Your task to perform on an android device: Open Yahoo.com Image 0: 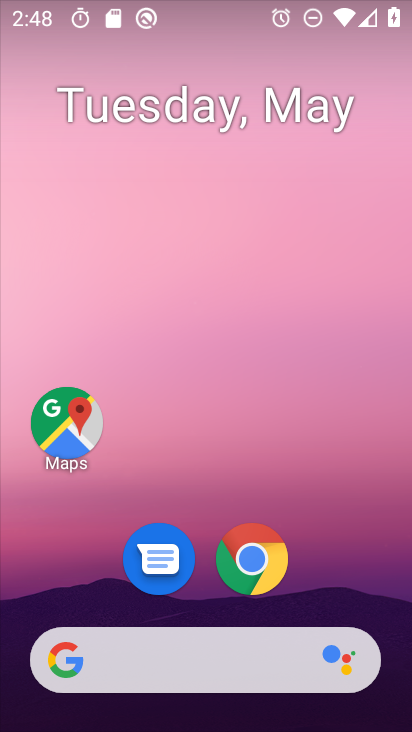
Step 0: click (252, 540)
Your task to perform on an android device: Open Yahoo.com Image 1: 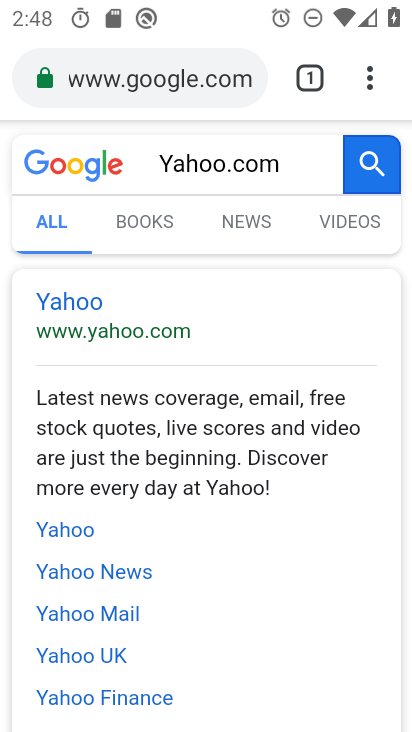
Step 1: click (259, 77)
Your task to perform on an android device: Open Yahoo.com Image 2: 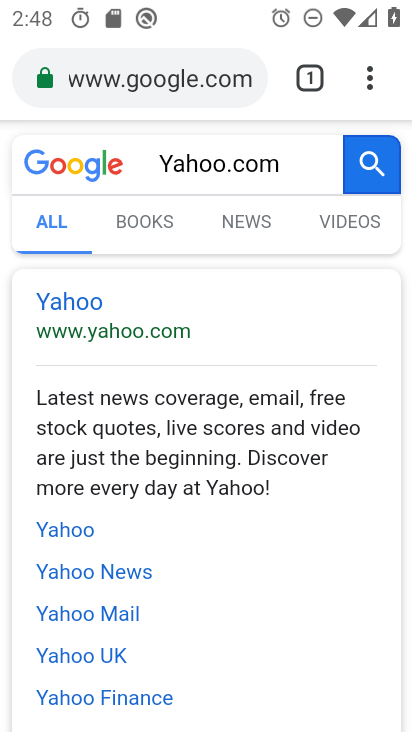
Step 2: click (247, 78)
Your task to perform on an android device: Open Yahoo.com Image 3: 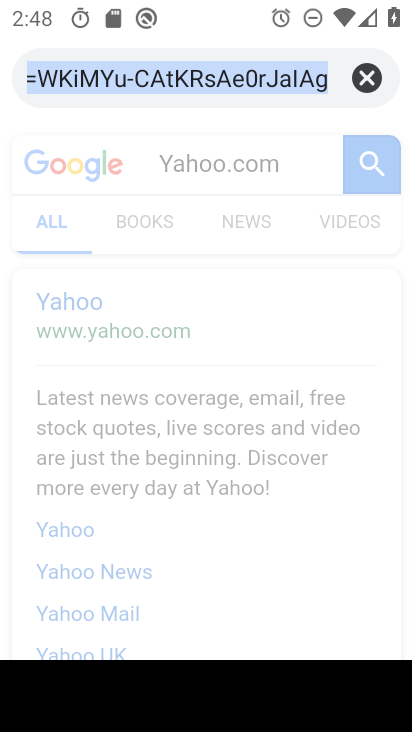
Step 3: click (359, 86)
Your task to perform on an android device: Open Yahoo.com Image 4: 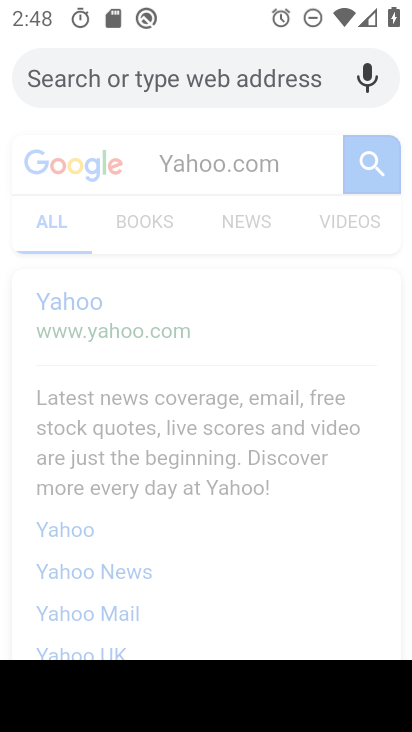
Step 4: type "Yahoo.com"
Your task to perform on an android device: Open Yahoo.com Image 5: 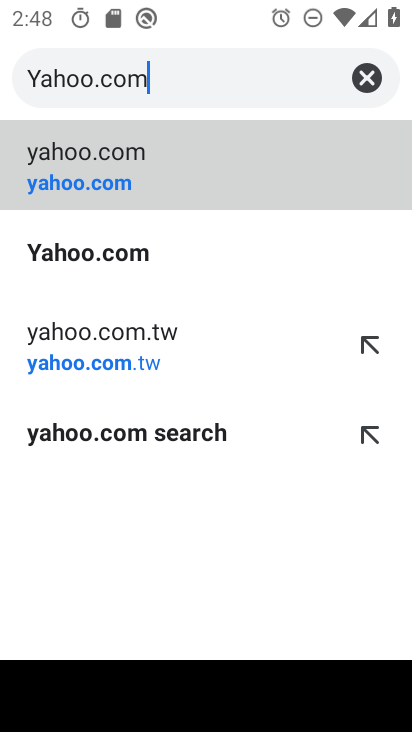
Step 5: click (96, 265)
Your task to perform on an android device: Open Yahoo.com Image 6: 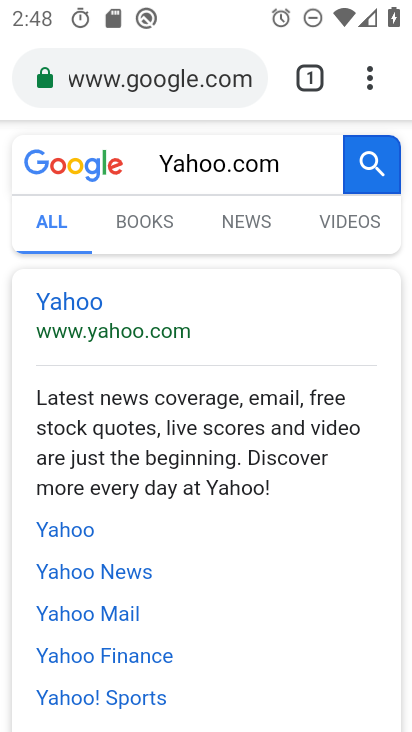
Step 6: task complete